Your task to perform on an android device: search for starred emails in the gmail app Image 0: 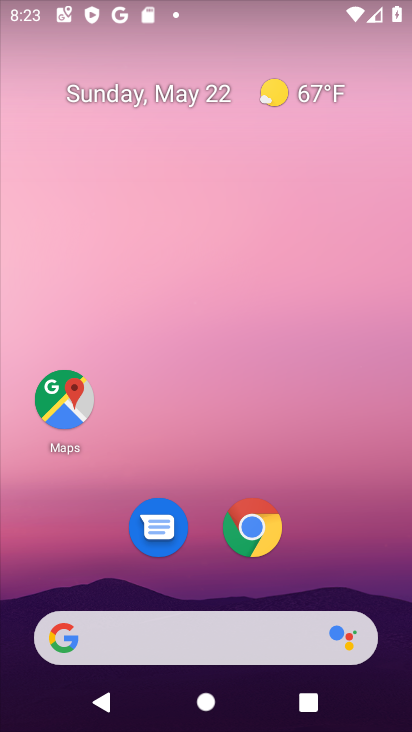
Step 0: drag from (215, 589) to (218, 46)
Your task to perform on an android device: search for starred emails in the gmail app Image 1: 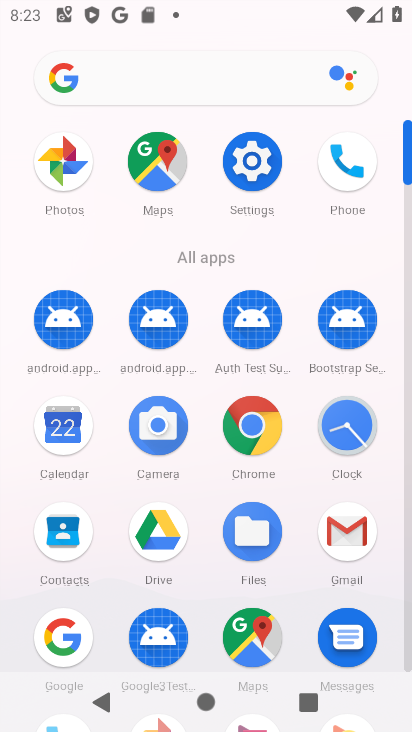
Step 1: click (342, 518)
Your task to perform on an android device: search for starred emails in the gmail app Image 2: 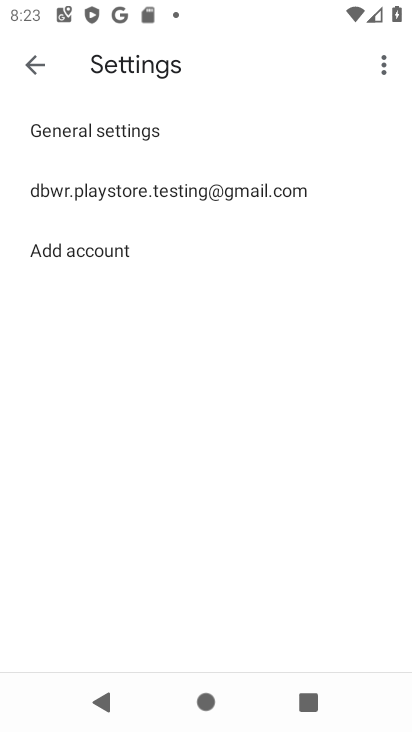
Step 2: click (45, 66)
Your task to perform on an android device: search for starred emails in the gmail app Image 3: 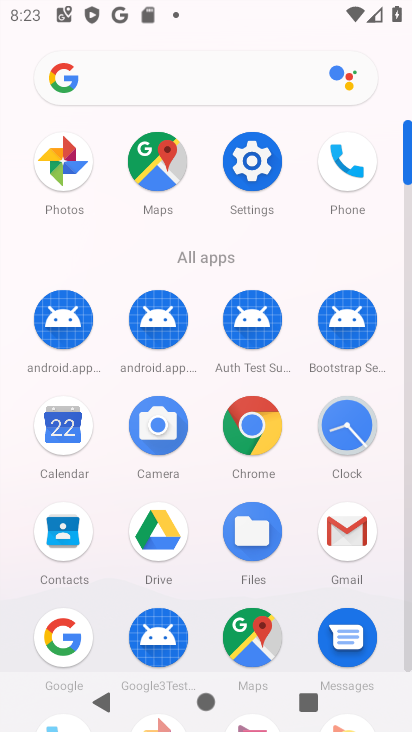
Step 3: click (347, 523)
Your task to perform on an android device: search for starred emails in the gmail app Image 4: 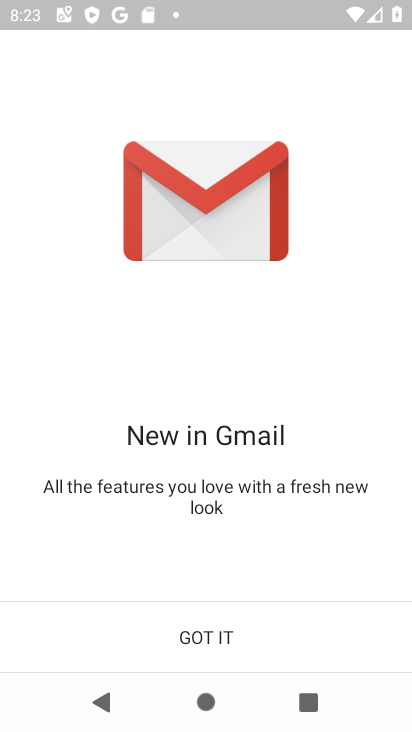
Step 4: click (212, 643)
Your task to perform on an android device: search for starred emails in the gmail app Image 5: 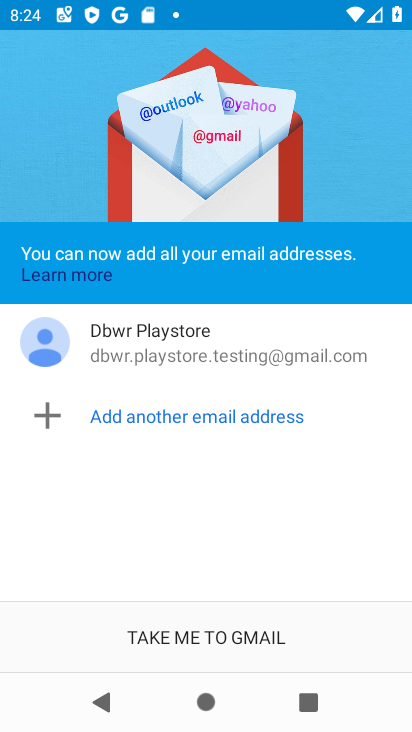
Step 5: click (201, 644)
Your task to perform on an android device: search for starred emails in the gmail app Image 6: 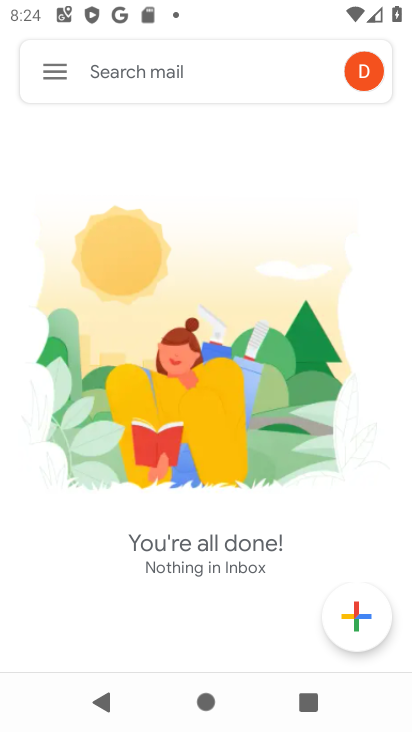
Step 6: click (46, 80)
Your task to perform on an android device: search for starred emails in the gmail app Image 7: 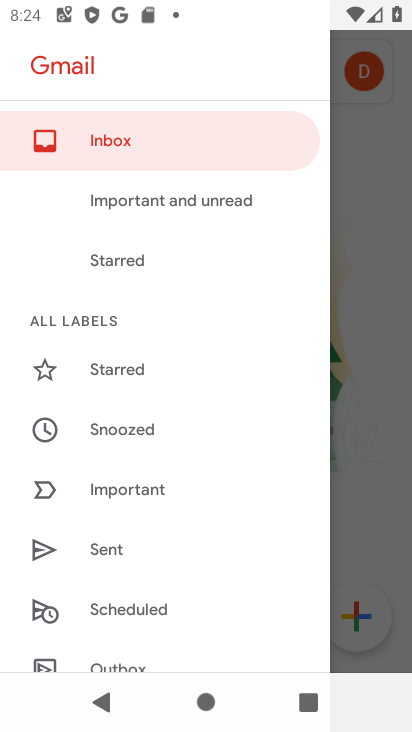
Step 7: click (149, 367)
Your task to perform on an android device: search for starred emails in the gmail app Image 8: 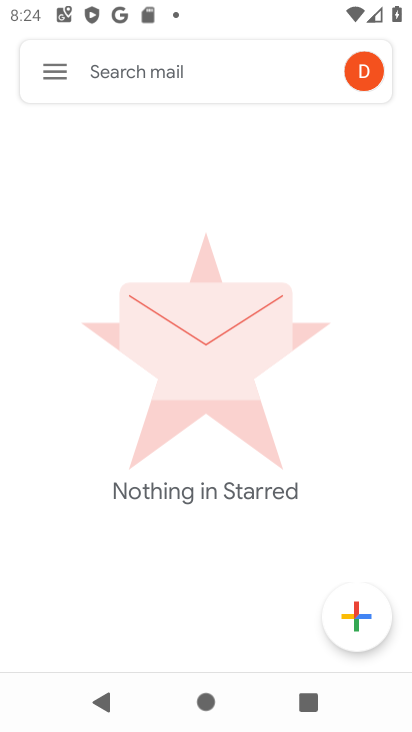
Step 8: task complete